Your task to perform on an android device: turn off data saver in the chrome app Image 0: 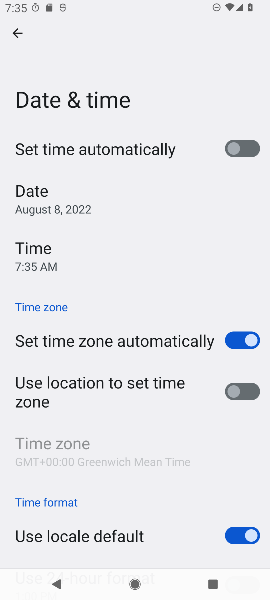
Step 0: press home button
Your task to perform on an android device: turn off data saver in the chrome app Image 1: 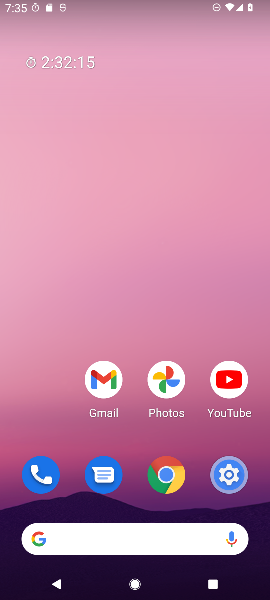
Step 1: drag from (65, 433) to (67, 179)
Your task to perform on an android device: turn off data saver in the chrome app Image 2: 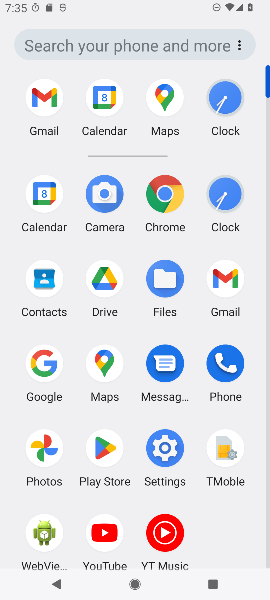
Step 2: click (160, 191)
Your task to perform on an android device: turn off data saver in the chrome app Image 3: 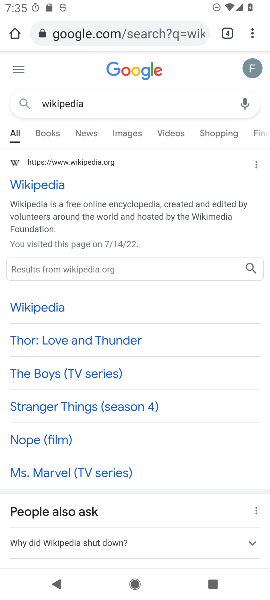
Step 3: click (253, 35)
Your task to perform on an android device: turn off data saver in the chrome app Image 4: 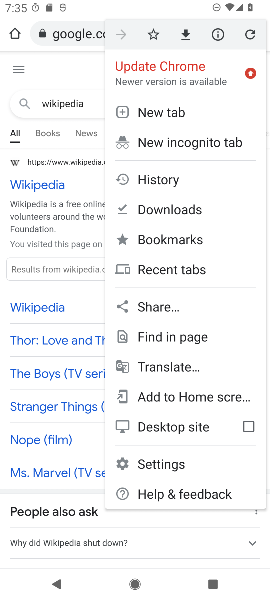
Step 4: click (174, 469)
Your task to perform on an android device: turn off data saver in the chrome app Image 5: 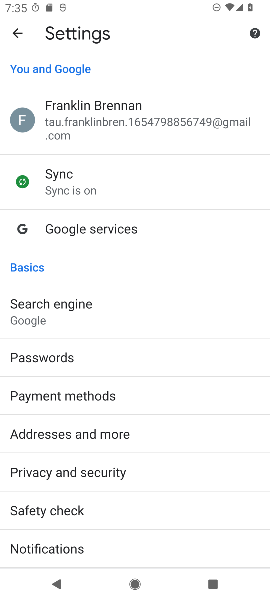
Step 5: drag from (210, 471) to (215, 365)
Your task to perform on an android device: turn off data saver in the chrome app Image 6: 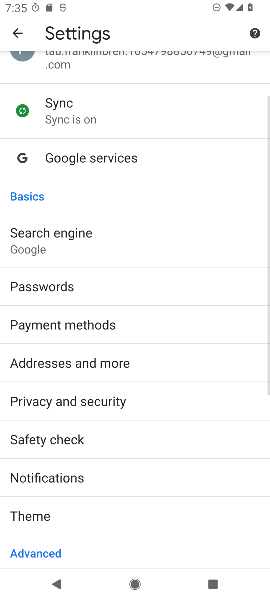
Step 6: drag from (191, 427) to (174, 402)
Your task to perform on an android device: turn off data saver in the chrome app Image 7: 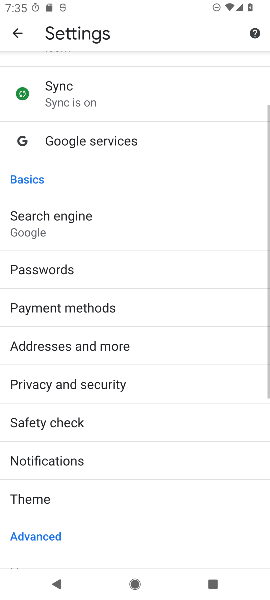
Step 7: drag from (192, 462) to (196, 363)
Your task to perform on an android device: turn off data saver in the chrome app Image 8: 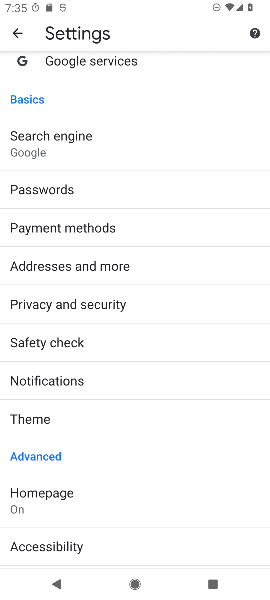
Step 8: drag from (191, 457) to (195, 363)
Your task to perform on an android device: turn off data saver in the chrome app Image 9: 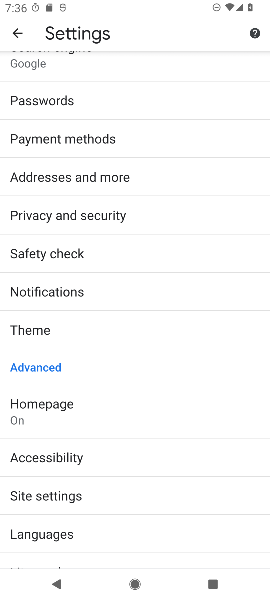
Step 9: drag from (177, 431) to (180, 348)
Your task to perform on an android device: turn off data saver in the chrome app Image 10: 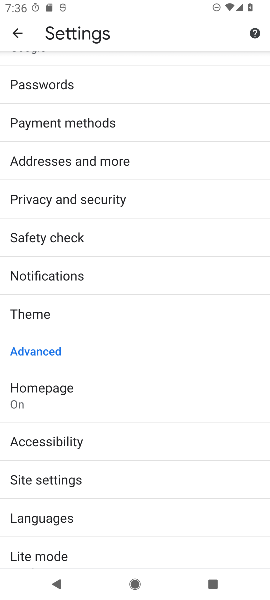
Step 10: click (126, 548)
Your task to perform on an android device: turn off data saver in the chrome app Image 11: 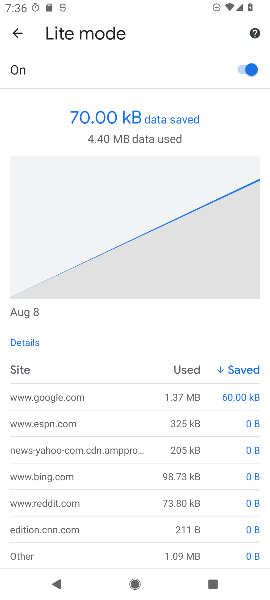
Step 11: click (249, 70)
Your task to perform on an android device: turn off data saver in the chrome app Image 12: 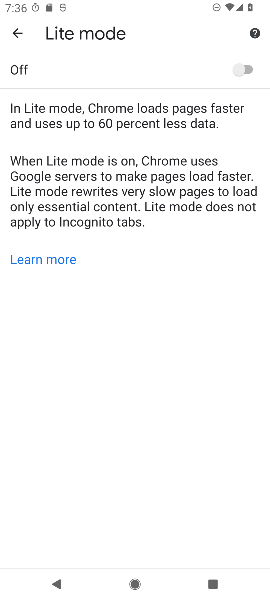
Step 12: task complete